Your task to perform on an android device: Open location settings Image 0: 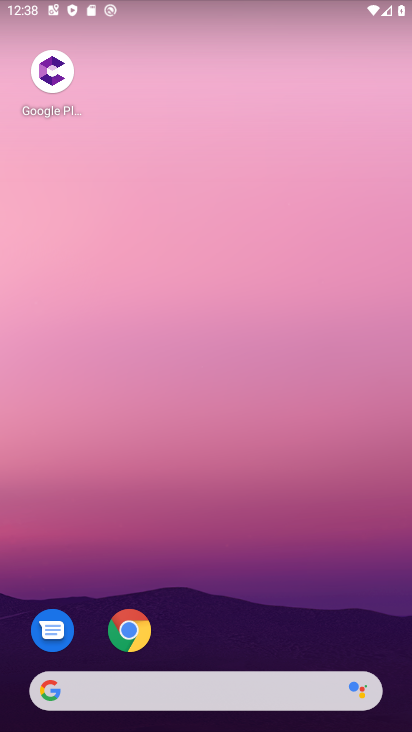
Step 0: drag from (204, 646) to (300, 53)
Your task to perform on an android device: Open location settings Image 1: 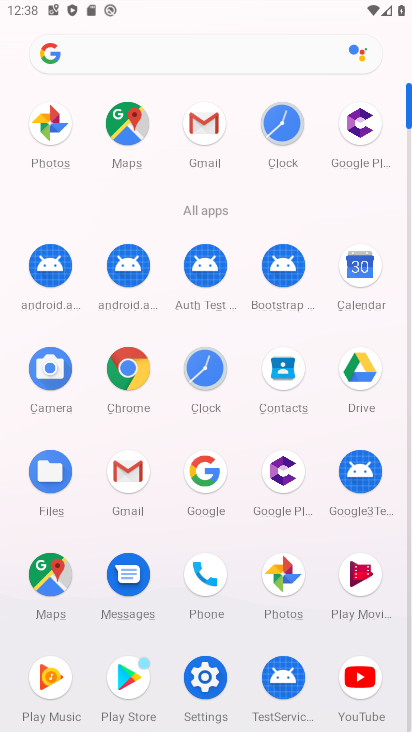
Step 1: drag from (220, 603) to (260, 357)
Your task to perform on an android device: Open location settings Image 2: 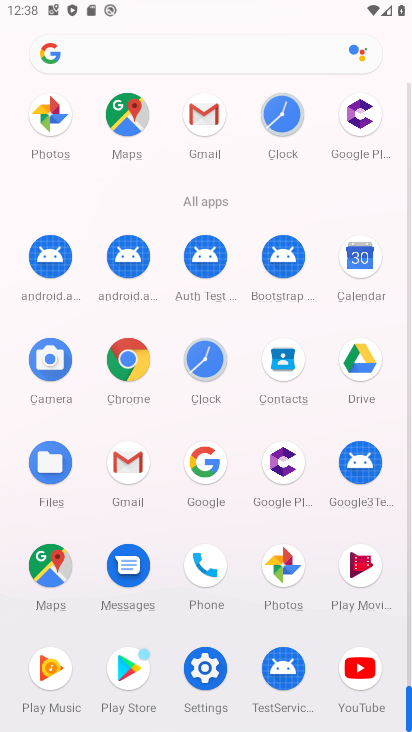
Step 2: click (214, 660)
Your task to perform on an android device: Open location settings Image 3: 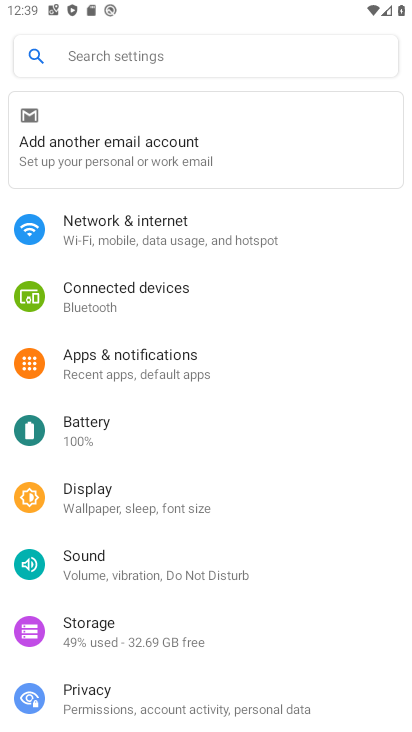
Step 3: drag from (138, 646) to (237, 177)
Your task to perform on an android device: Open location settings Image 4: 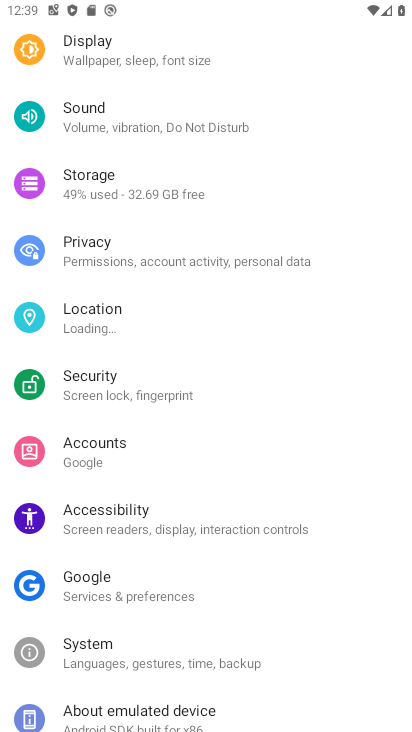
Step 4: drag from (133, 724) to (189, 449)
Your task to perform on an android device: Open location settings Image 5: 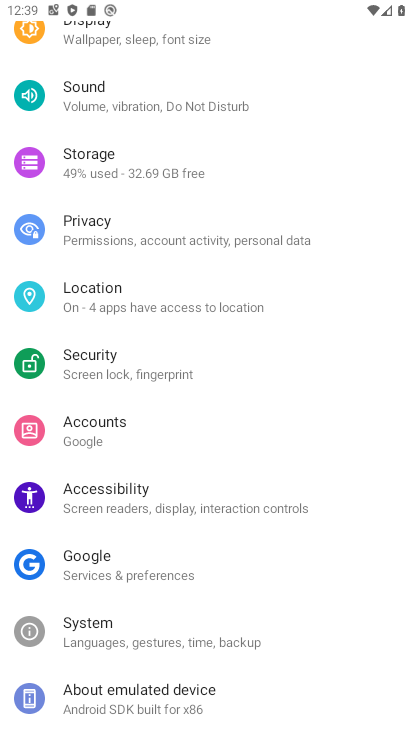
Step 5: click (148, 305)
Your task to perform on an android device: Open location settings Image 6: 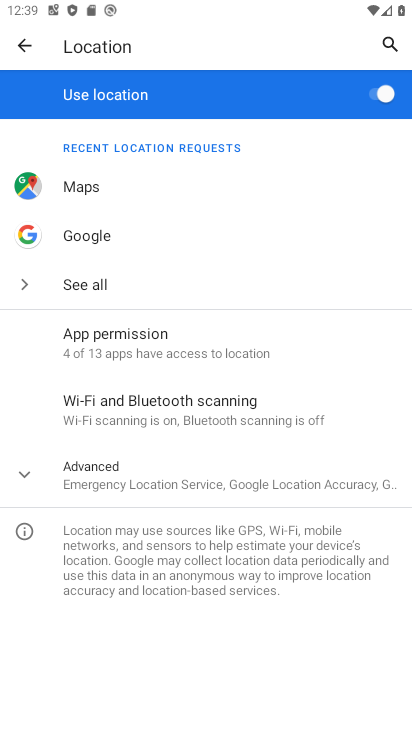
Step 6: task complete